Your task to perform on an android device: Open Chrome and go to settings Image 0: 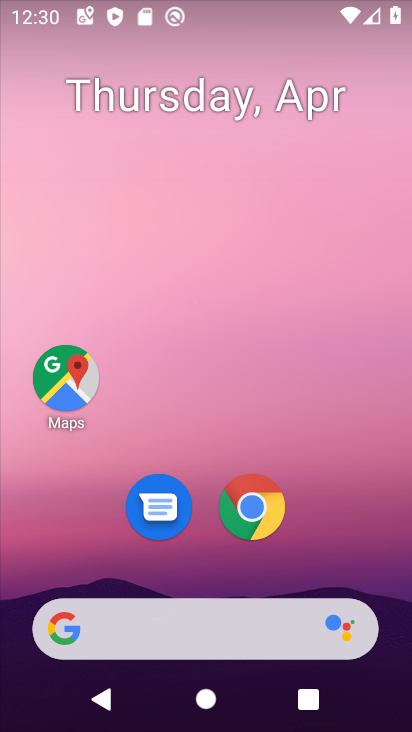
Step 0: click (250, 508)
Your task to perform on an android device: Open Chrome and go to settings Image 1: 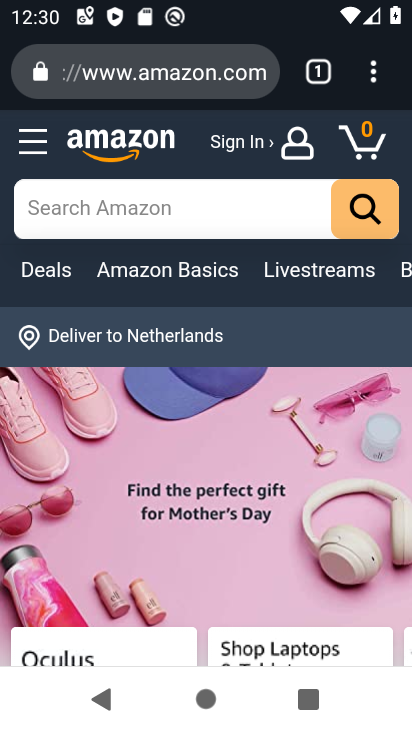
Step 1: click (378, 78)
Your task to perform on an android device: Open Chrome and go to settings Image 2: 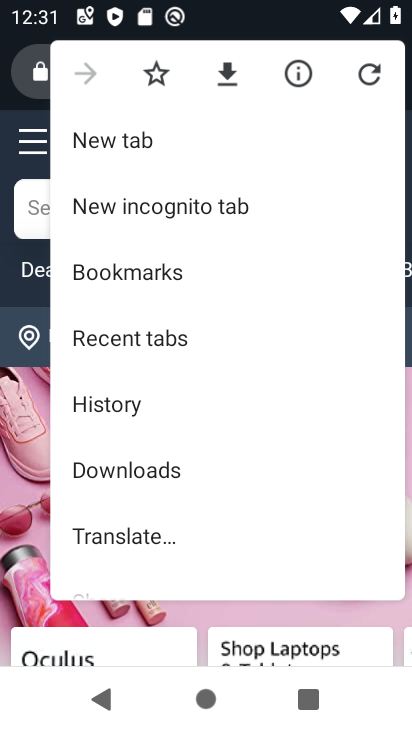
Step 2: drag from (198, 414) to (208, 243)
Your task to perform on an android device: Open Chrome and go to settings Image 3: 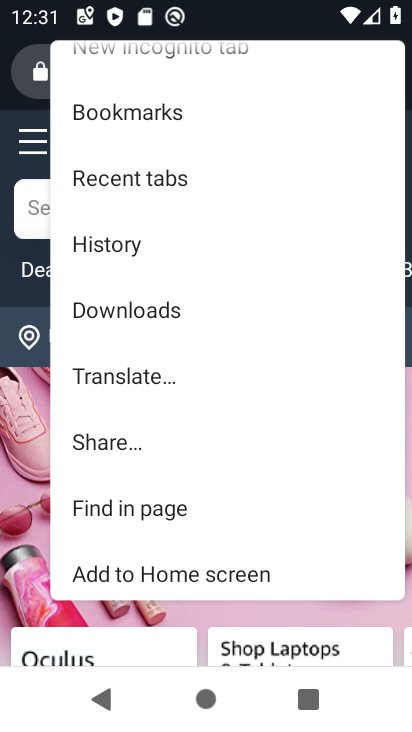
Step 3: drag from (221, 444) to (211, 310)
Your task to perform on an android device: Open Chrome and go to settings Image 4: 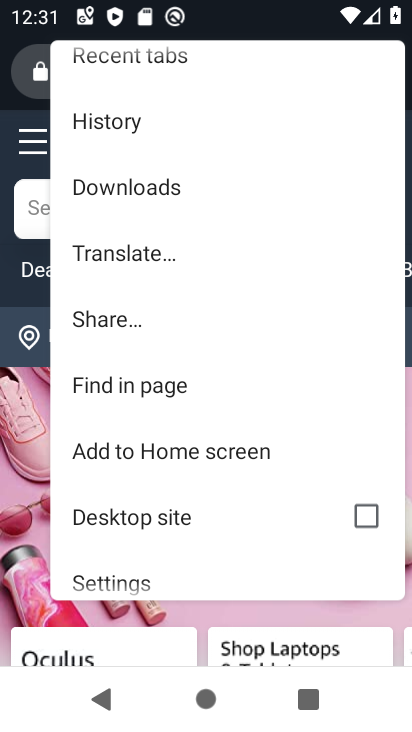
Step 4: drag from (205, 410) to (217, 321)
Your task to perform on an android device: Open Chrome and go to settings Image 5: 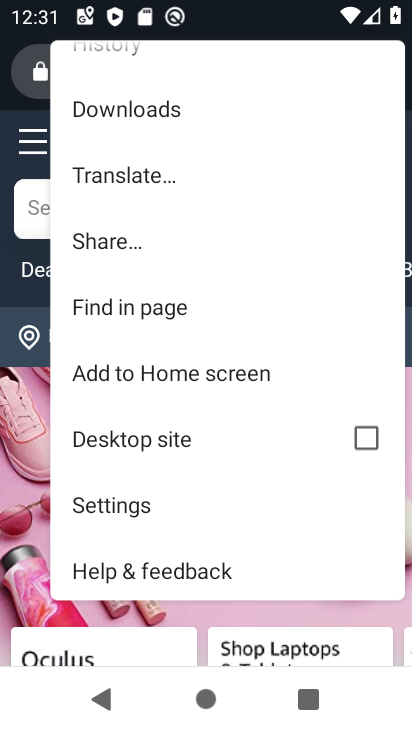
Step 5: click (146, 501)
Your task to perform on an android device: Open Chrome and go to settings Image 6: 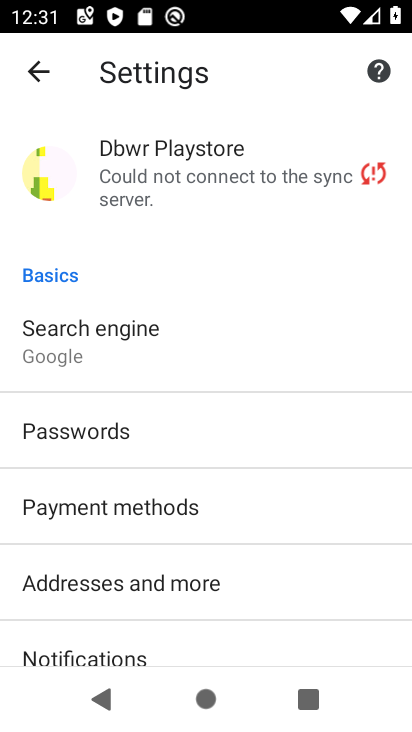
Step 6: task complete